Your task to perform on an android device: change text size in settings app Image 0: 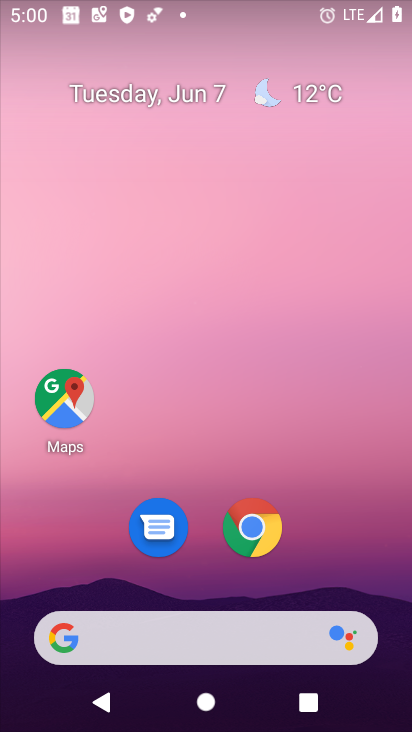
Step 0: drag from (331, 561) to (277, 37)
Your task to perform on an android device: change text size in settings app Image 1: 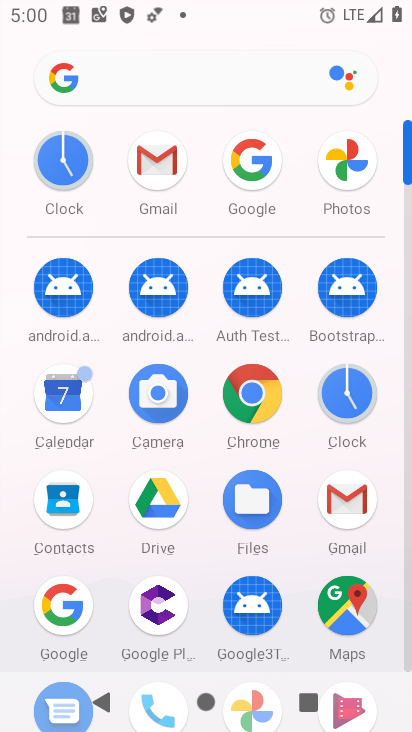
Step 1: drag from (190, 575) to (207, 350)
Your task to perform on an android device: change text size in settings app Image 2: 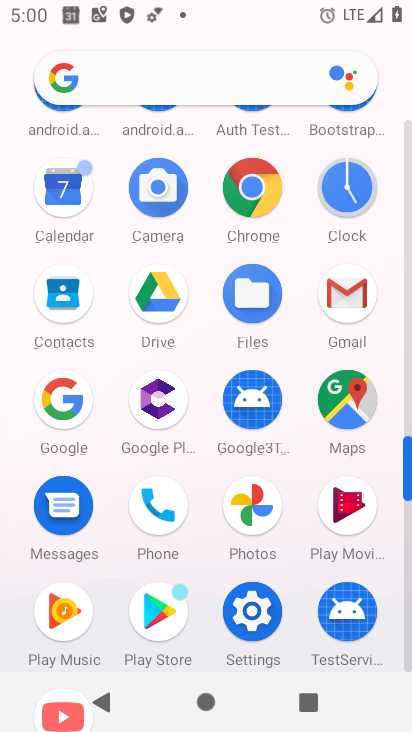
Step 2: click (253, 611)
Your task to perform on an android device: change text size in settings app Image 3: 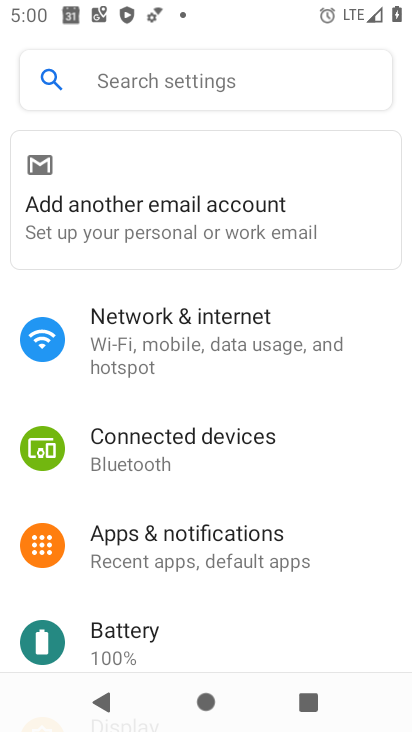
Step 3: drag from (188, 499) to (195, 389)
Your task to perform on an android device: change text size in settings app Image 4: 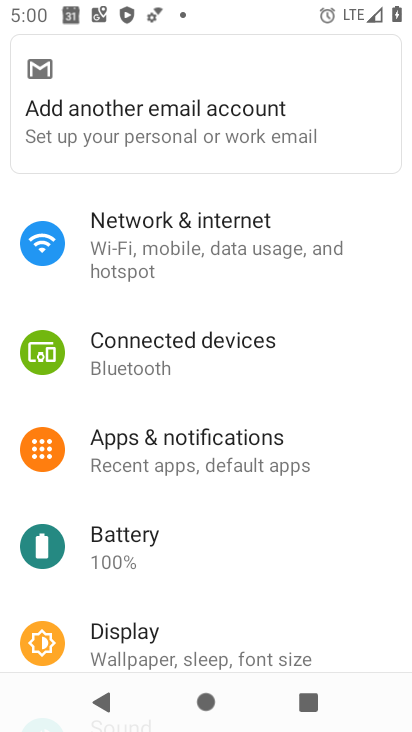
Step 4: drag from (175, 601) to (179, 433)
Your task to perform on an android device: change text size in settings app Image 5: 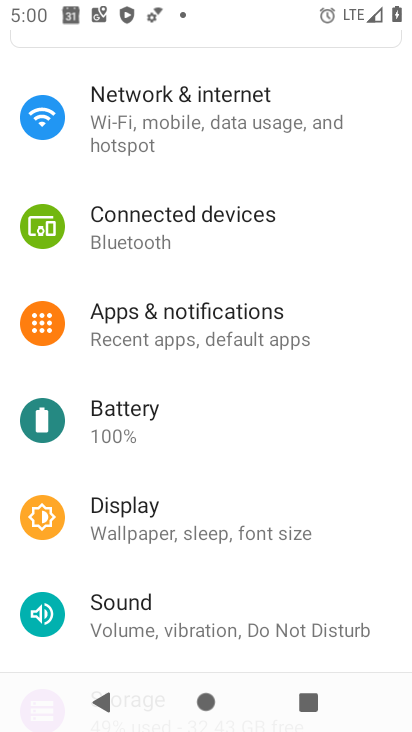
Step 5: drag from (150, 556) to (167, 431)
Your task to perform on an android device: change text size in settings app Image 6: 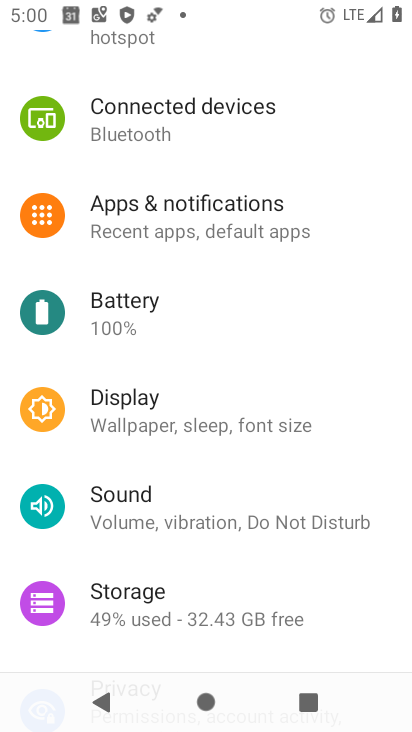
Step 6: drag from (118, 552) to (153, 425)
Your task to perform on an android device: change text size in settings app Image 7: 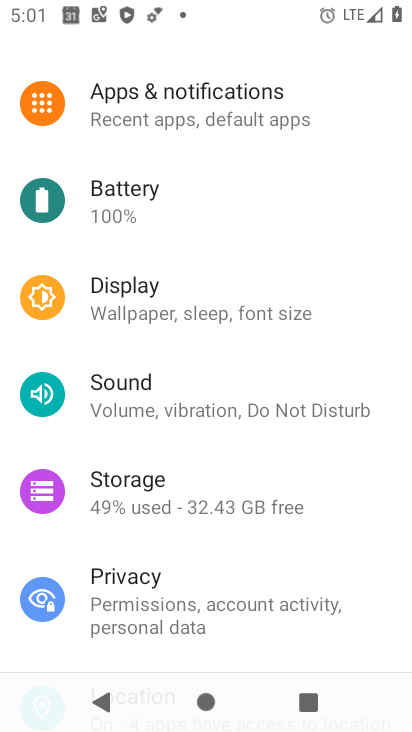
Step 7: drag from (118, 547) to (171, 409)
Your task to perform on an android device: change text size in settings app Image 8: 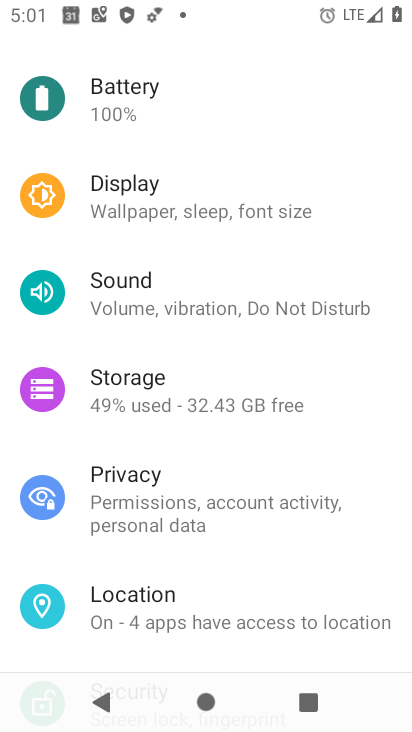
Step 8: drag from (165, 566) to (176, 407)
Your task to perform on an android device: change text size in settings app Image 9: 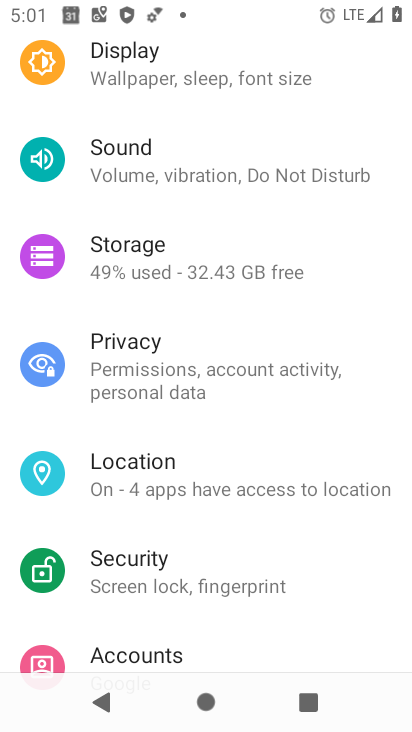
Step 9: drag from (181, 522) to (194, 395)
Your task to perform on an android device: change text size in settings app Image 10: 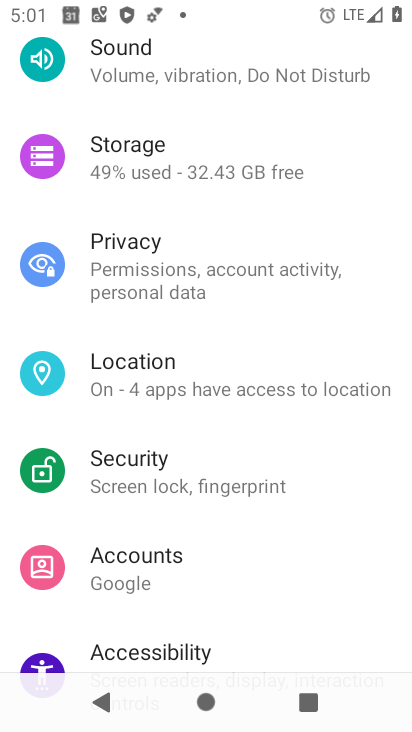
Step 10: drag from (129, 509) to (196, 390)
Your task to perform on an android device: change text size in settings app Image 11: 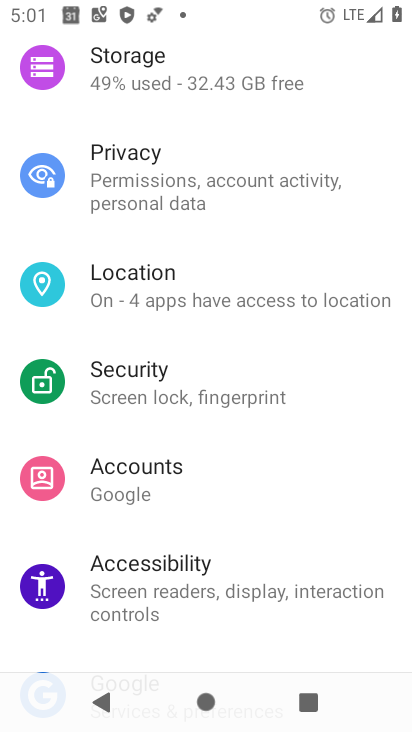
Step 11: drag from (139, 518) to (204, 437)
Your task to perform on an android device: change text size in settings app Image 12: 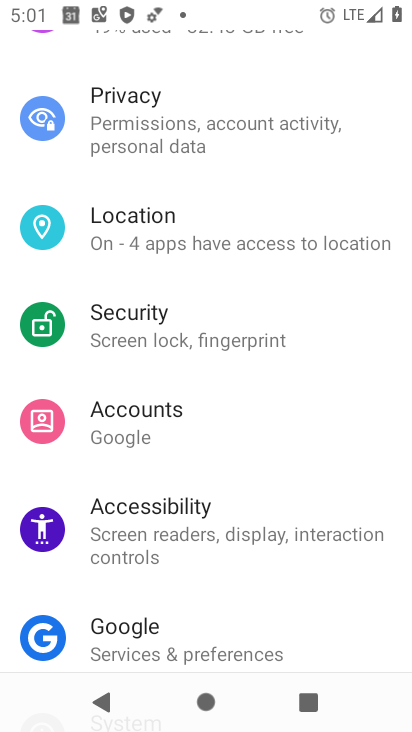
Step 12: click (180, 500)
Your task to perform on an android device: change text size in settings app Image 13: 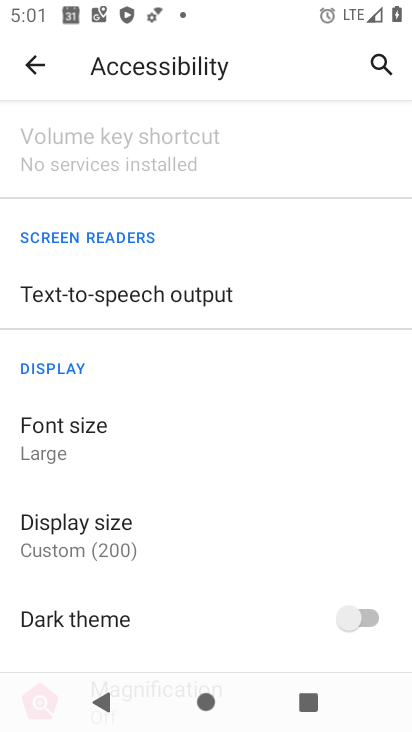
Step 13: click (86, 418)
Your task to perform on an android device: change text size in settings app Image 14: 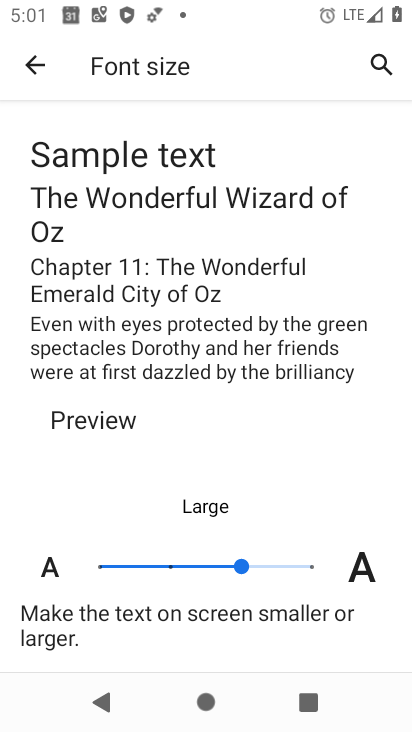
Step 14: click (182, 564)
Your task to perform on an android device: change text size in settings app Image 15: 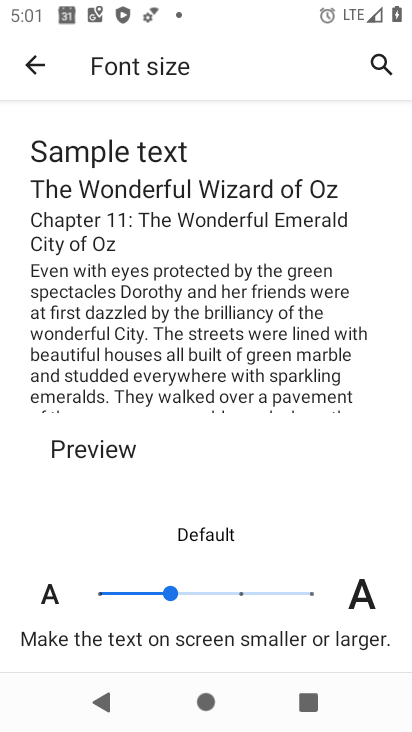
Step 15: task complete